Your task to perform on an android device: check out phone information Image 0: 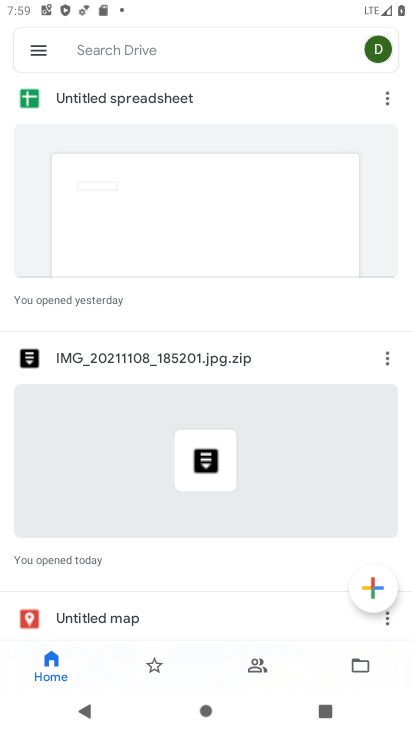
Step 0: press back button
Your task to perform on an android device: check out phone information Image 1: 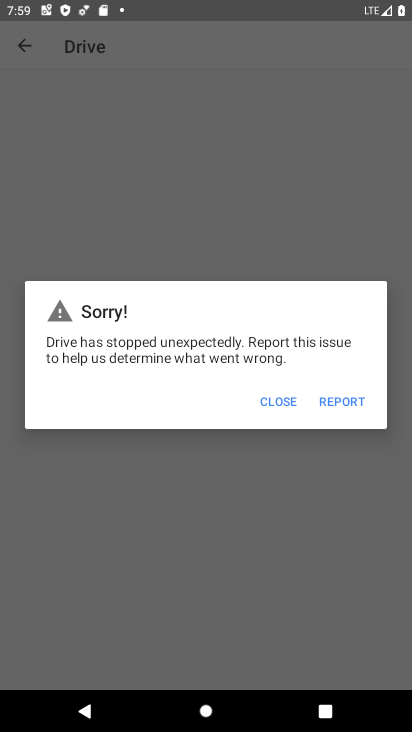
Step 1: press back button
Your task to perform on an android device: check out phone information Image 2: 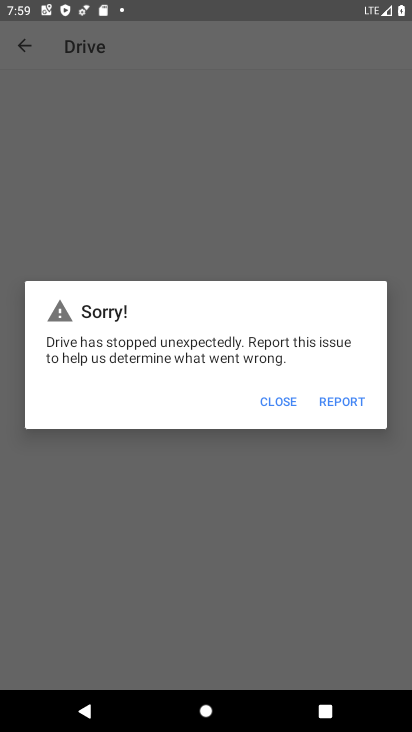
Step 2: press home button
Your task to perform on an android device: check out phone information Image 3: 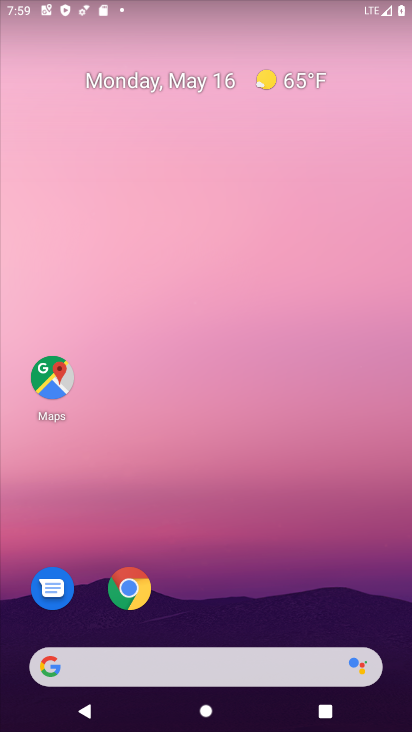
Step 3: drag from (243, 580) to (234, 28)
Your task to perform on an android device: check out phone information Image 4: 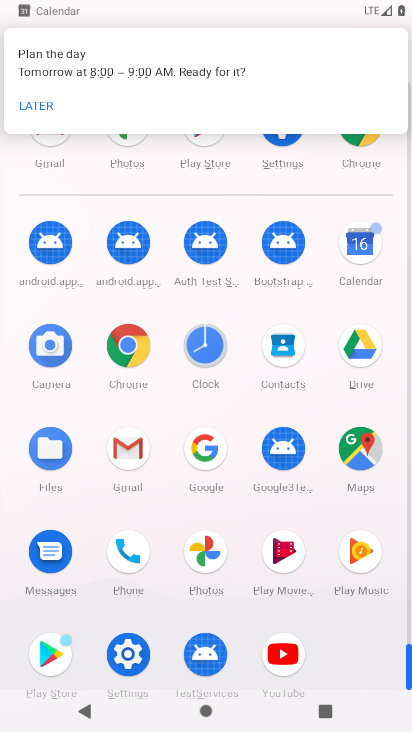
Step 4: click (124, 650)
Your task to perform on an android device: check out phone information Image 5: 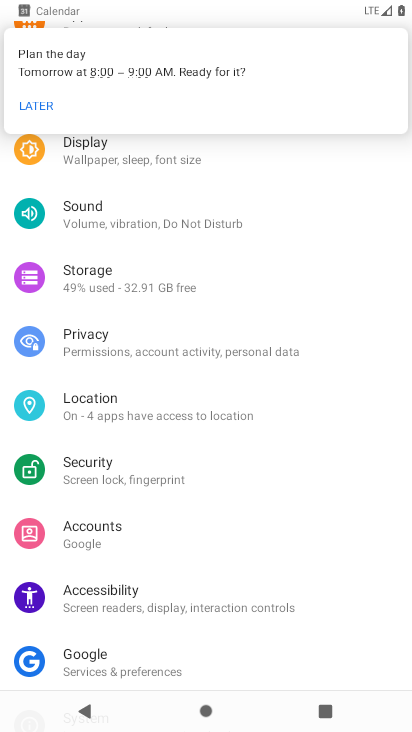
Step 5: drag from (210, 625) to (221, 219)
Your task to perform on an android device: check out phone information Image 6: 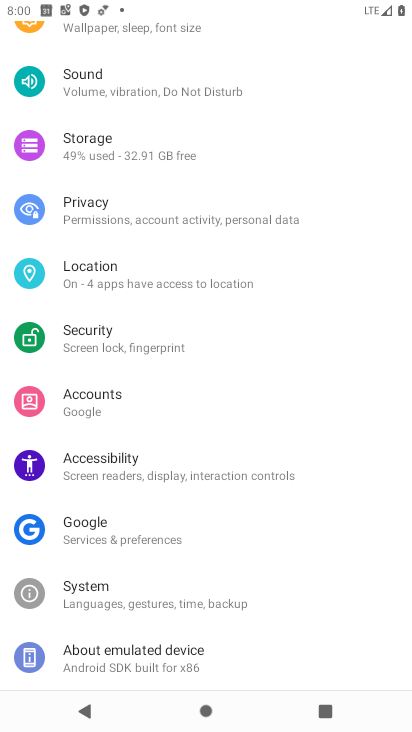
Step 6: click (169, 653)
Your task to perform on an android device: check out phone information Image 7: 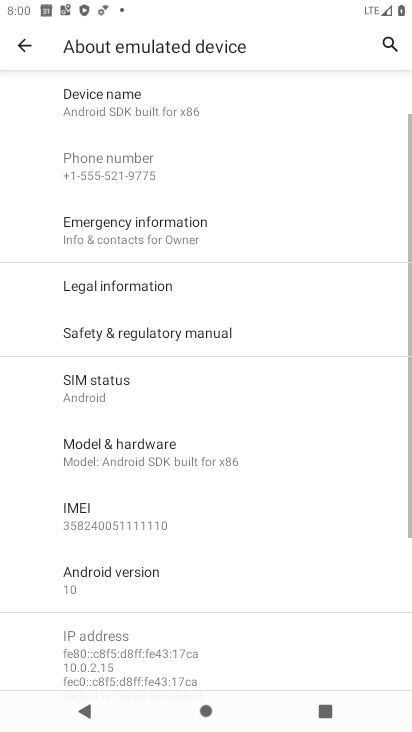
Step 7: task complete